Your task to perform on an android device: Go to Google Image 0: 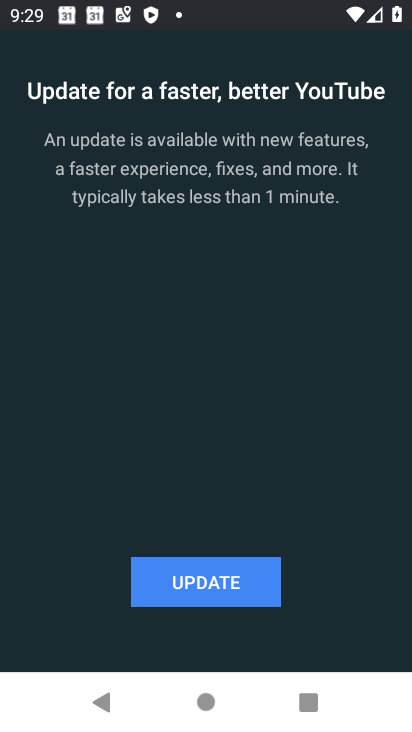
Step 0: press home button
Your task to perform on an android device: Go to Google Image 1: 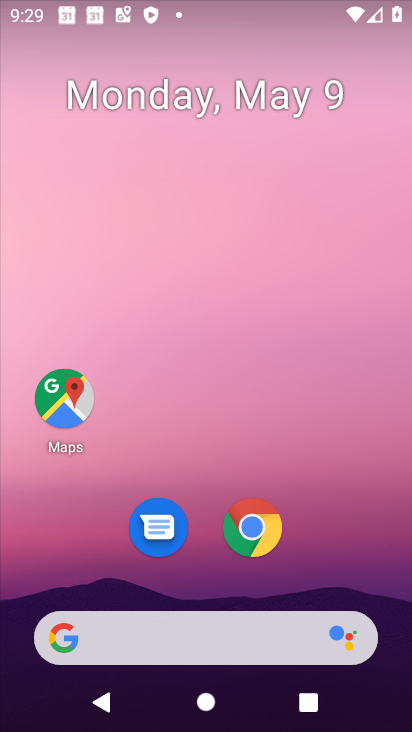
Step 1: drag from (153, 614) to (267, 160)
Your task to perform on an android device: Go to Google Image 2: 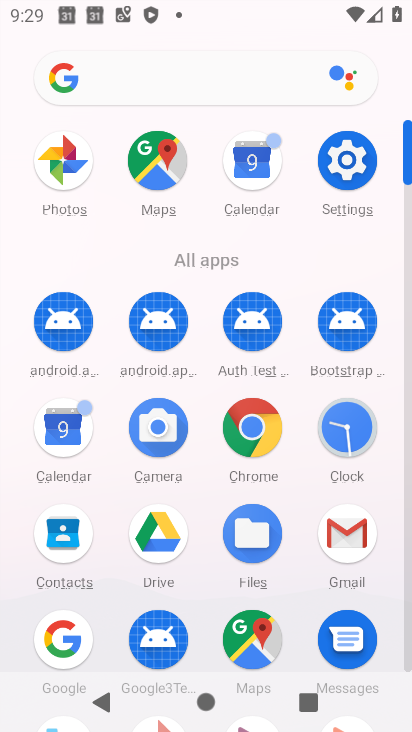
Step 2: click (56, 640)
Your task to perform on an android device: Go to Google Image 3: 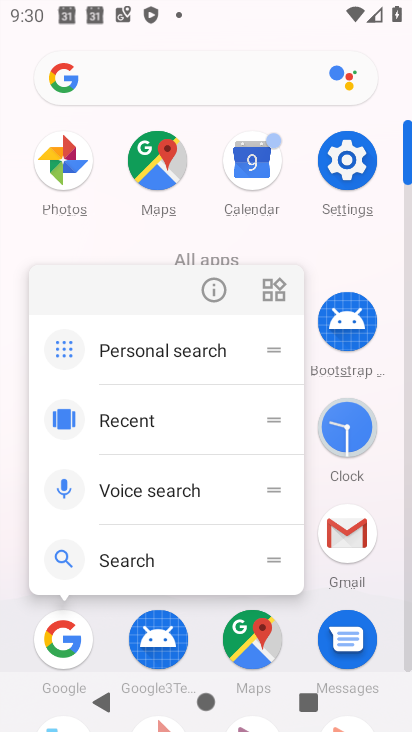
Step 3: click (56, 660)
Your task to perform on an android device: Go to Google Image 4: 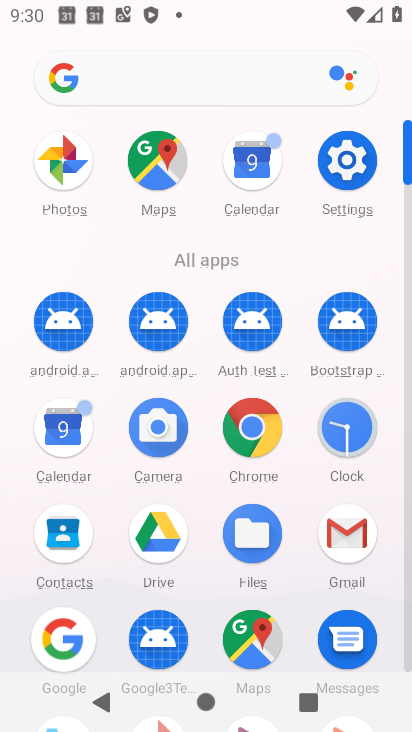
Step 4: click (60, 645)
Your task to perform on an android device: Go to Google Image 5: 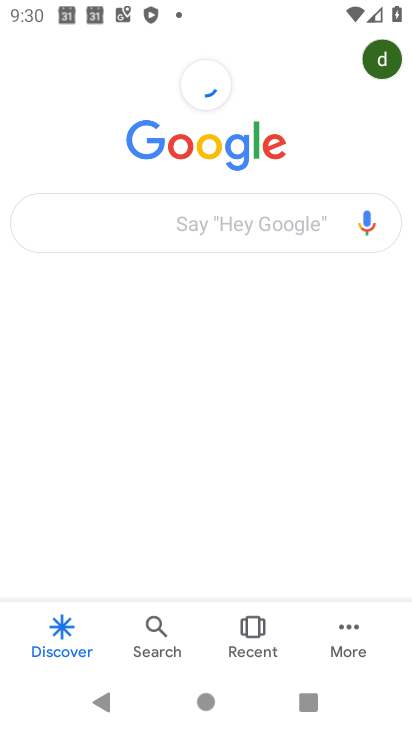
Step 5: task complete